Your task to perform on an android device: turn on airplane mode Image 0: 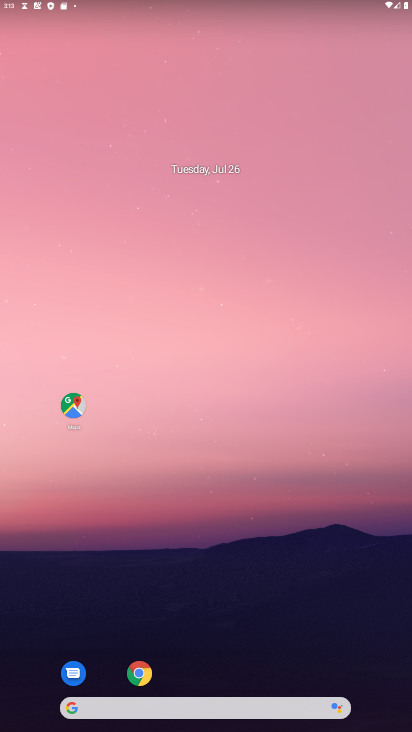
Step 0: press home button
Your task to perform on an android device: turn on airplane mode Image 1: 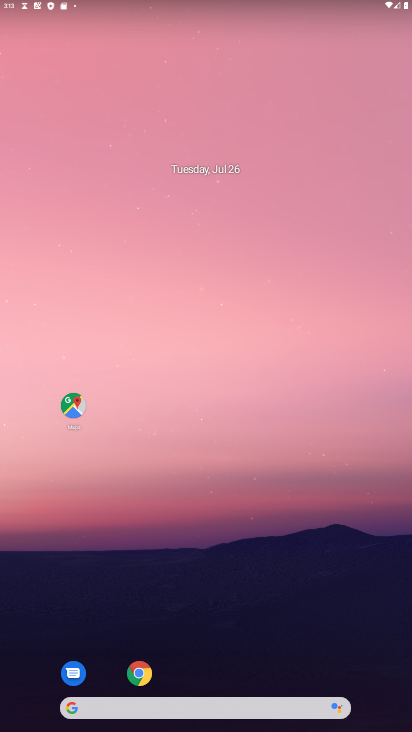
Step 1: drag from (188, 710) to (263, 7)
Your task to perform on an android device: turn on airplane mode Image 2: 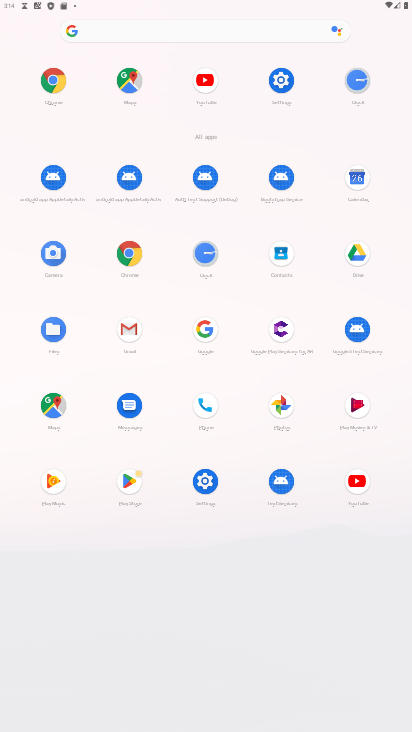
Step 2: click (282, 81)
Your task to perform on an android device: turn on airplane mode Image 3: 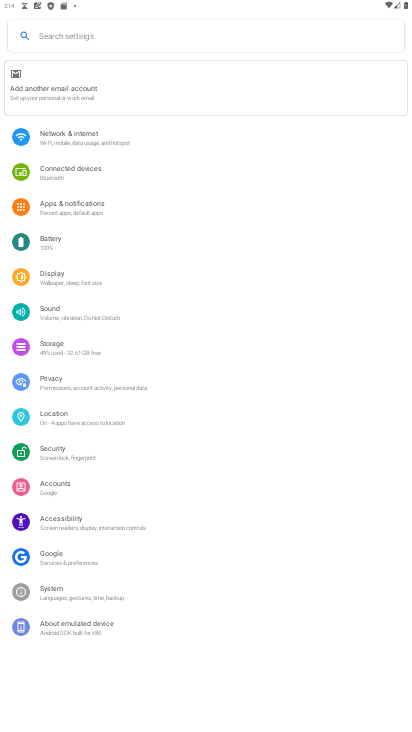
Step 3: click (68, 138)
Your task to perform on an android device: turn on airplane mode Image 4: 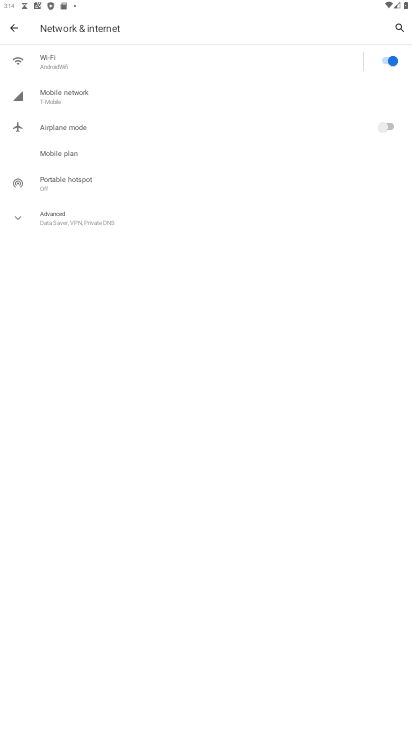
Step 4: click (380, 125)
Your task to perform on an android device: turn on airplane mode Image 5: 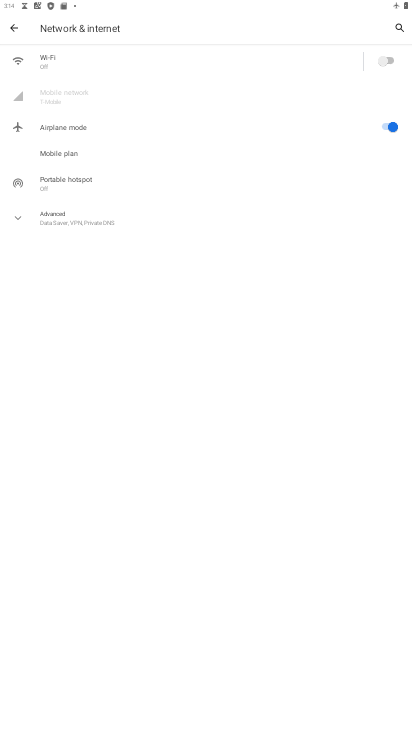
Step 5: task complete